Your task to perform on an android device: change alarm snooze length Image 0: 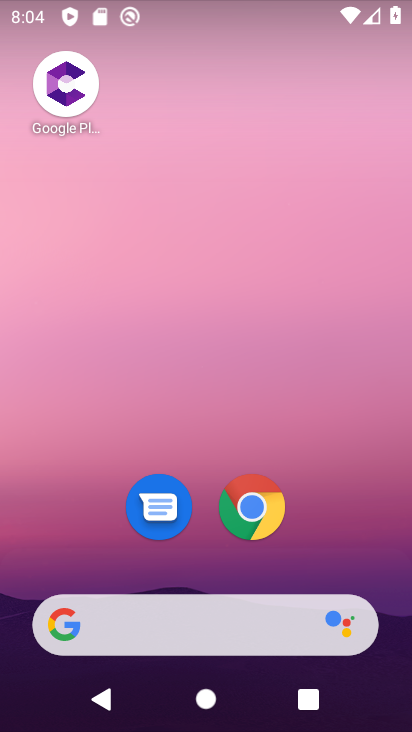
Step 0: drag from (199, 546) to (248, 213)
Your task to perform on an android device: change alarm snooze length Image 1: 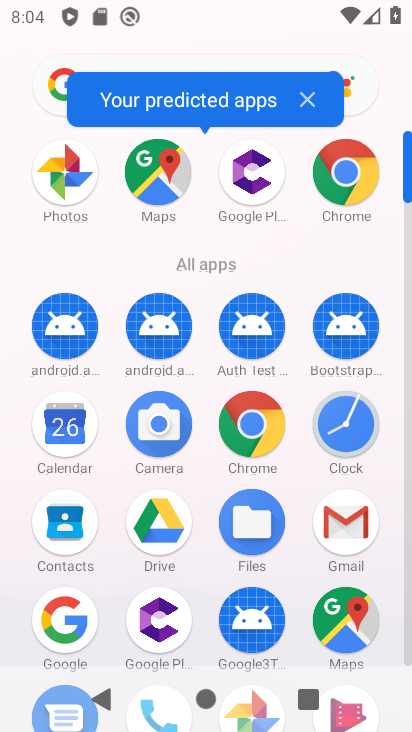
Step 1: drag from (197, 469) to (221, 176)
Your task to perform on an android device: change alarm snooze length Image 2: 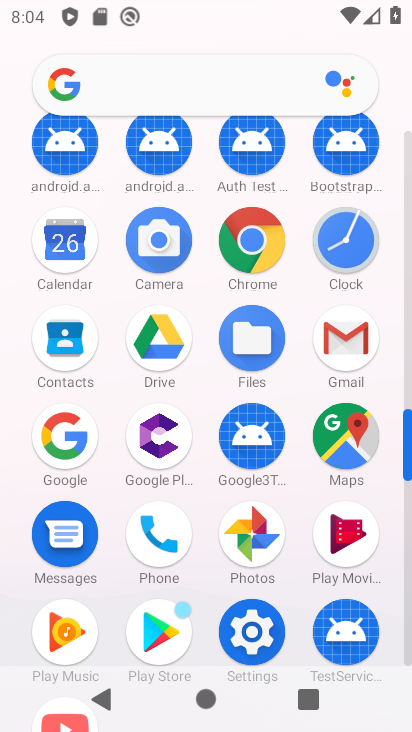
Step 2: click (258, 628)
Your task to perform on an android device: change alarm snooze length Image 3: 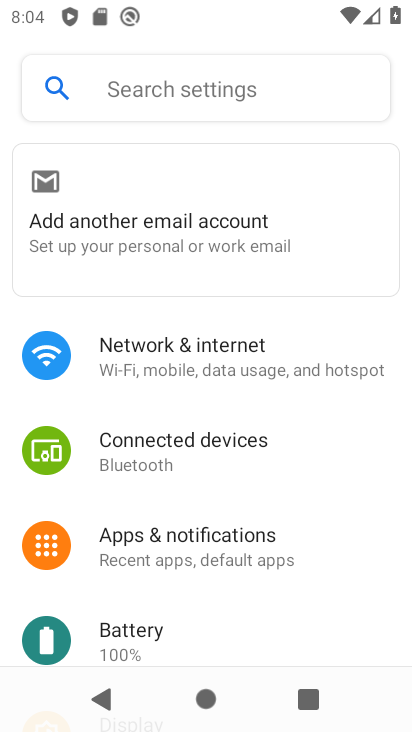
Step 3: press home button
Your task to perform on an android device: change alarm snooze length Image 4: 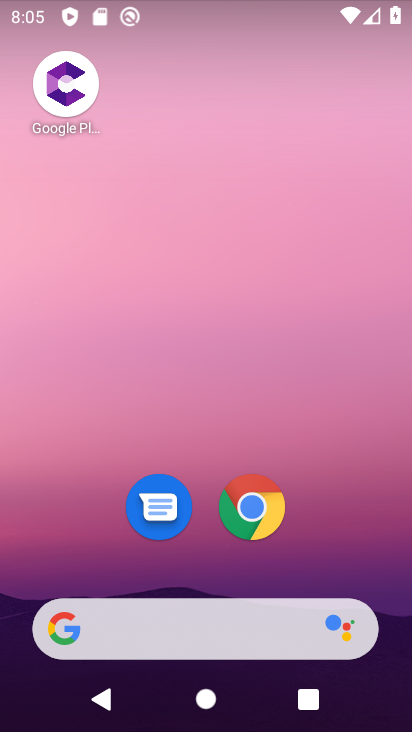
Step 4: drag from (205, 518) to (245, 167)
Your task to perform on an android device: change alarm snooze length Image 5: 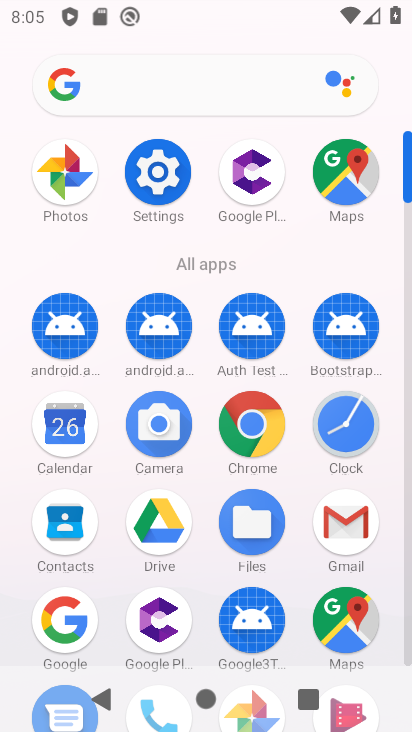
Step 5: click (340, 416)
Your task to perform on an android device: change alarm snooze length Image 6: 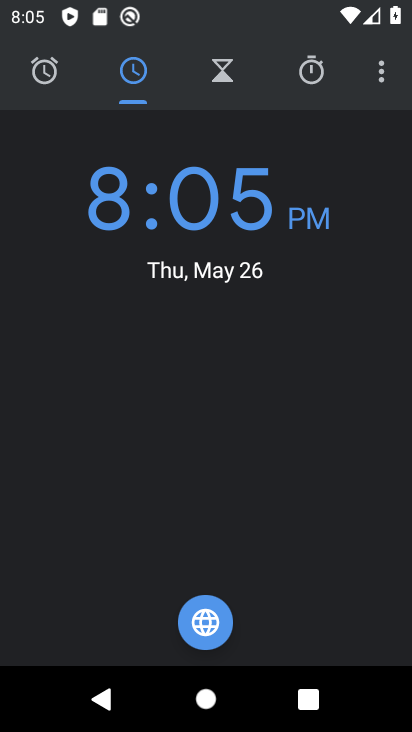
Step 6: click (381, 74)
Your task to perform on an android device: change alarm snooze length Image 7: 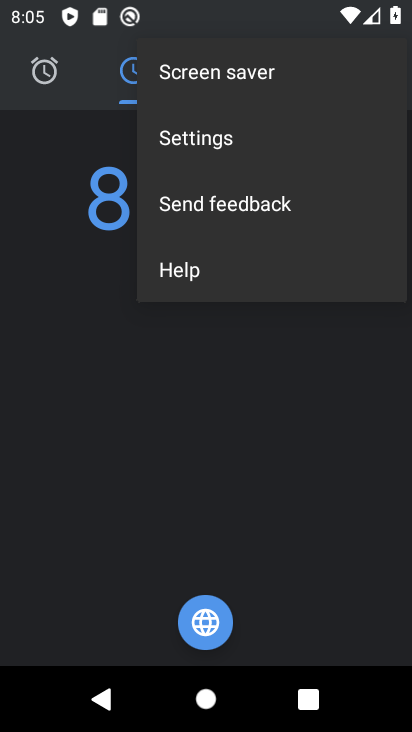
Step 7: click (197, 145)
Your task to perform on an android device: change alarm snooze length Image 8: 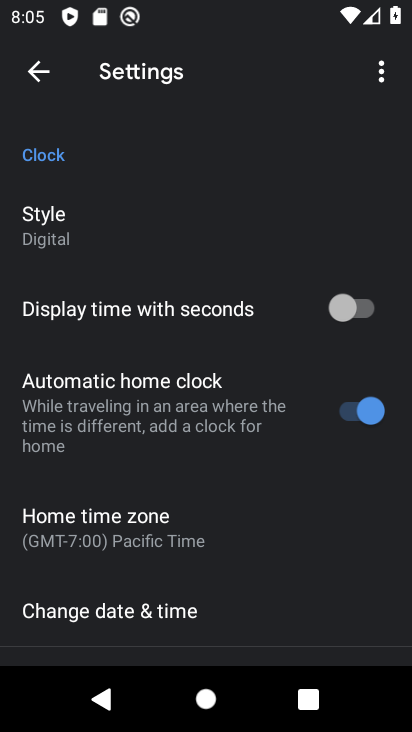
Step 8: drag from (136, 536) to (244, 146)
Your task to perform on an android device: change alarm snooze length Image 9: 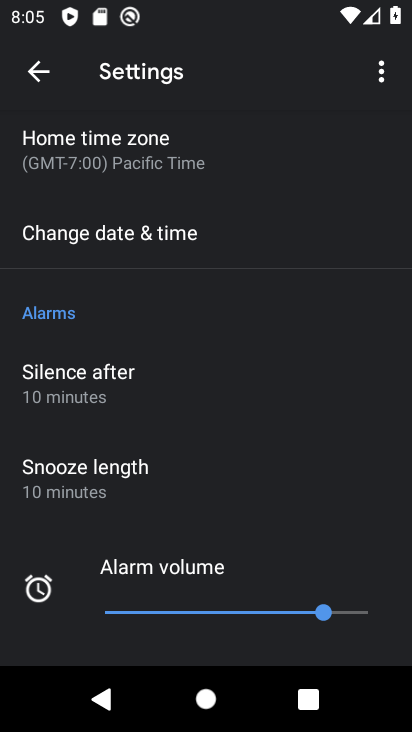
Step 9: click (114, 485)
Your task to perform on an android device: change alarm snooze length Image 10: 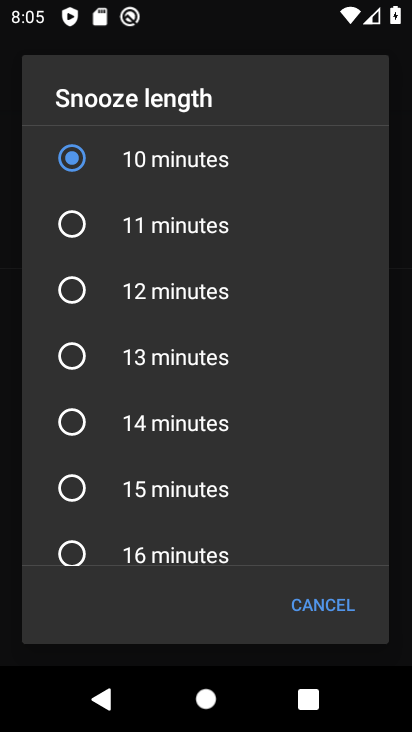
Step 10: click (128, 235)
Your task to perform on an android device: change alarm snooze length Image 11: 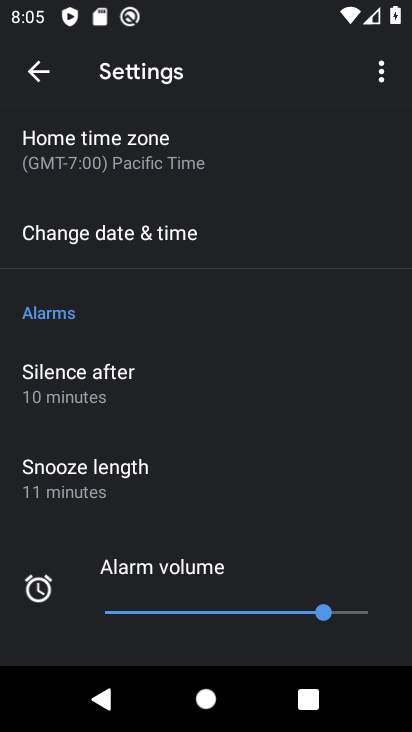
Step 11: task complete